Your task to perform on an android device: Go to display settings Image 0: 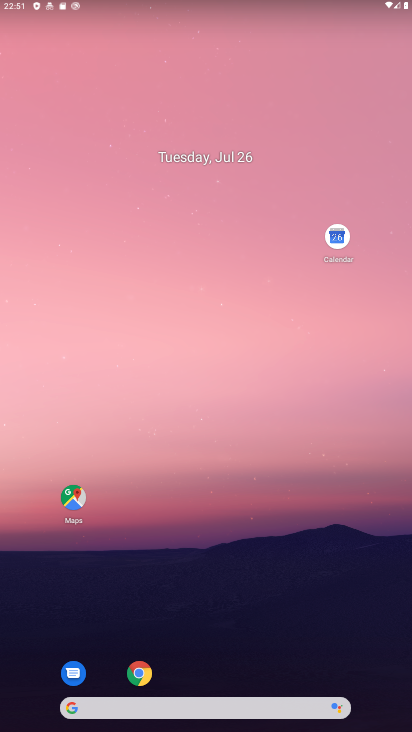
Step 0: drag from (274, 653) to (192, 0)
Your task to perform on an android device: Go to display settings Image 1: 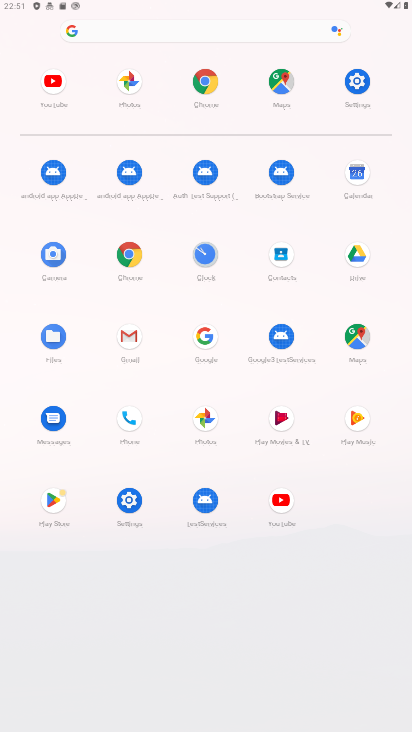
Step 1: click (356, 82)
Your task to perform on an android device: Go to display settings Image 2: 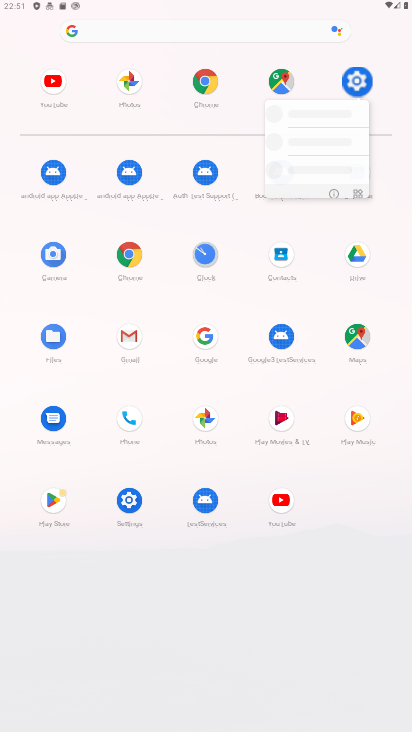
Step 2: click (356, 83)
Your task to perform on an android device: Go to display settings Image 3: 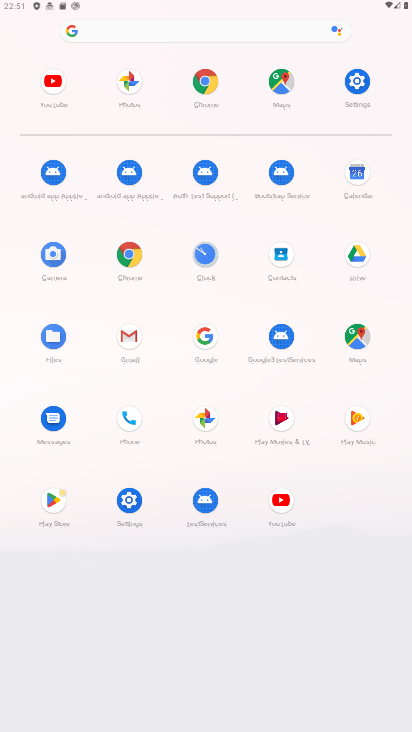
Step 3: click (353, 85)
Your task to perform on an android device: Go to display settings Image 4: 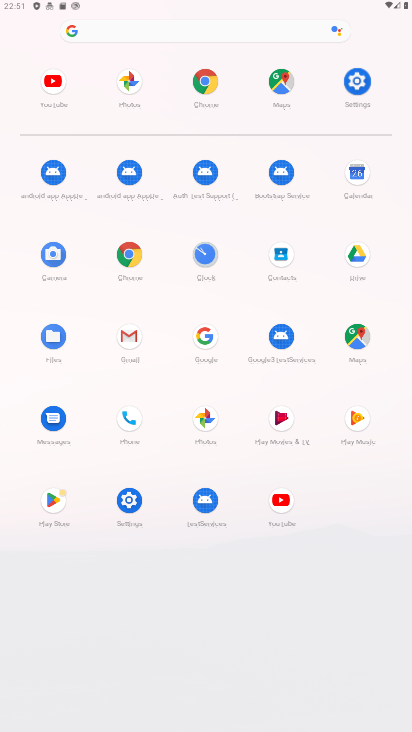
Step 4: click (354, 85)
Your task to perform on an android device: Go to display settings Image 5: 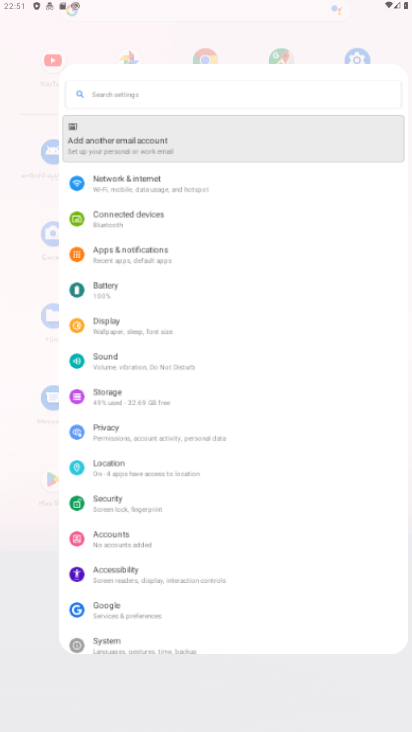
Step 5: click (358, 85)
Your task to perform on an android device: Go to display settings Image 6: 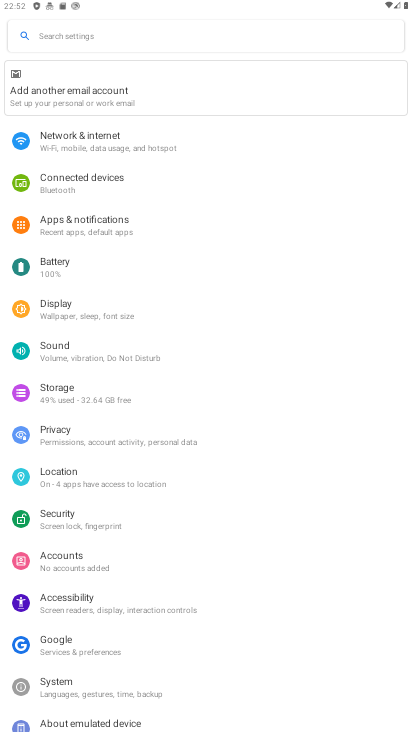
Step 6: click (46, 303)
Your task to perform on an android device: Go to display settings Image 7: 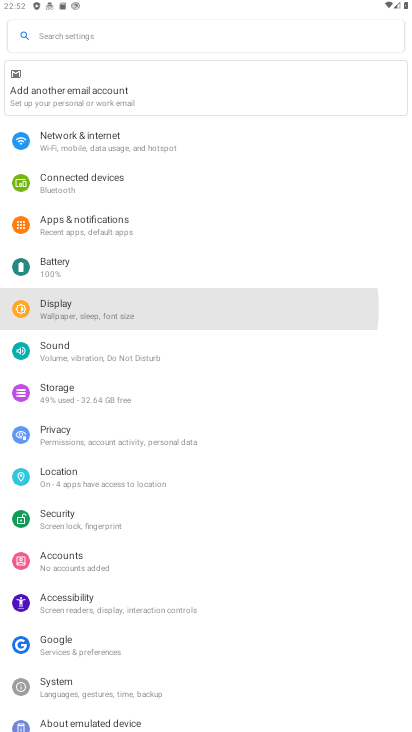
Step 7: click (50, 303)
Your task to perform on an android device: Go to display settings Image 8: 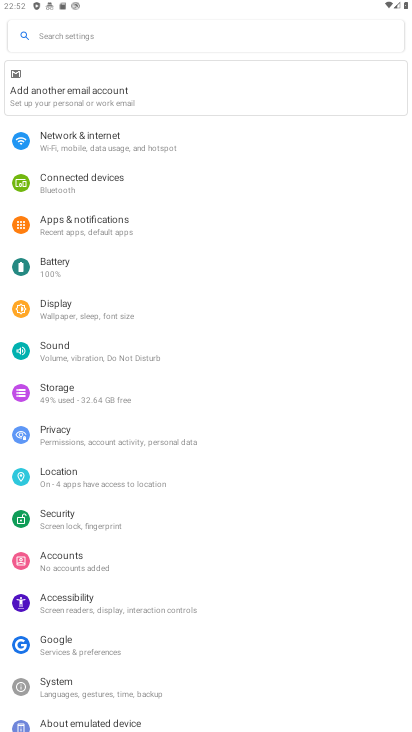
Step 8: click (53, 302)
Your task to perform on an android device: Go to display settings Image 9: 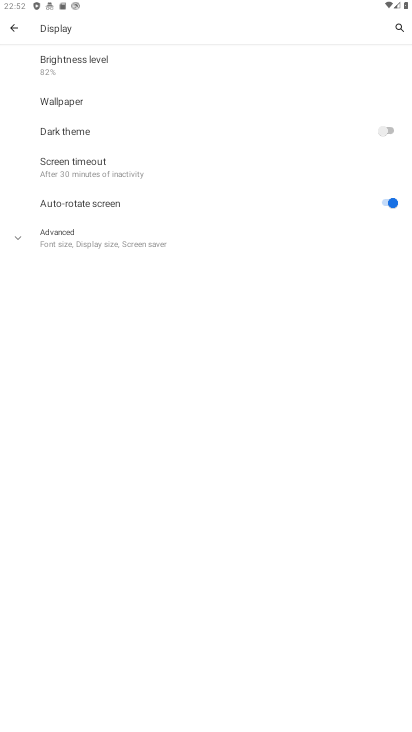
Step 9: click (16, 23)
Your task to perform on an android device: Go to display settings Image 10: 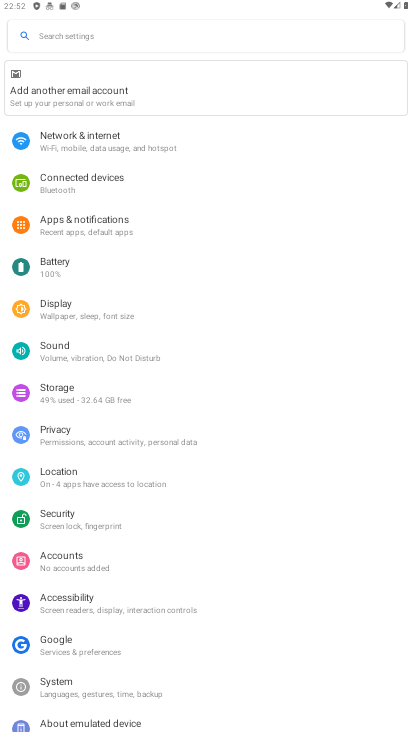
Step 10: click (64, 318)
Your task to perform on an android device: Go to display settings Image 11: 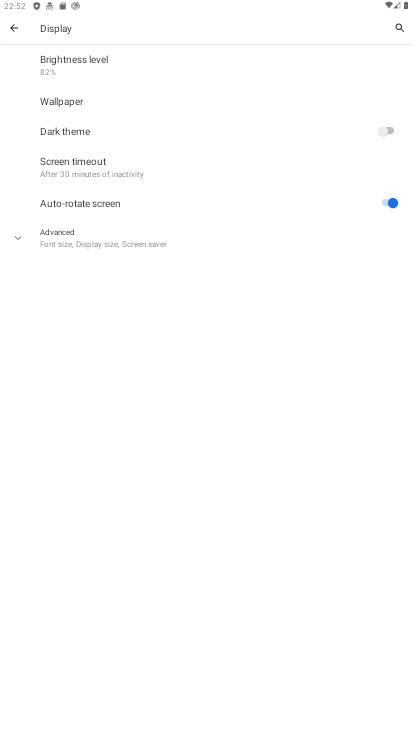
Step 11: click (60, 238)
Your task to perform on an android device: Go to display settings Image 12: 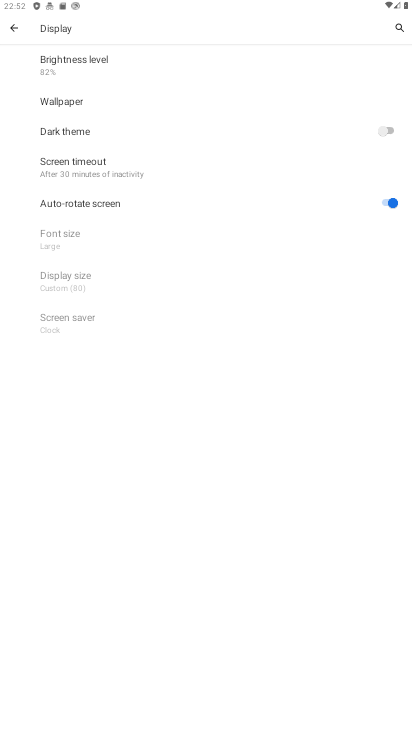
Step 12: click (66, 232)
Your task to perform on an android device: Go to display settings Image 13: 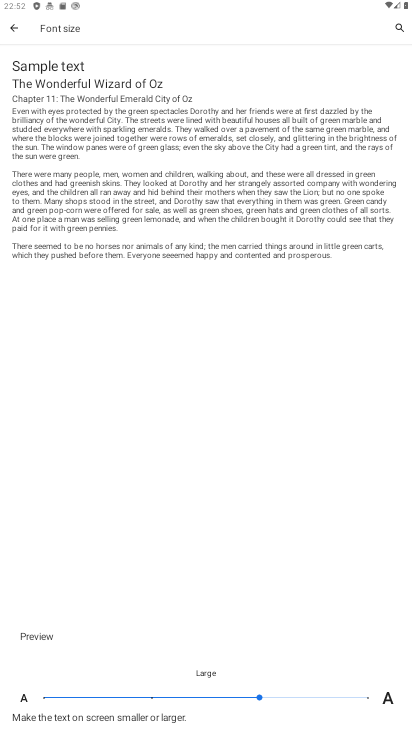
Step 13: click (362, 694)
Your task to perform on an android device: Go to display settings Image 14: 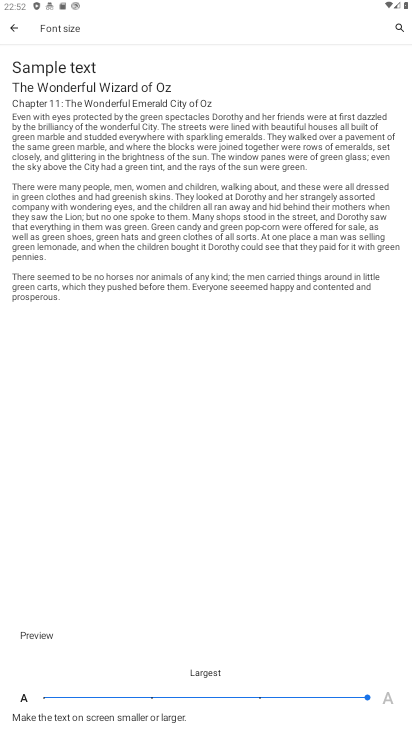
Step 14: task complete